Your task to perform on an android device: empty trash in the gmail app Image 0: 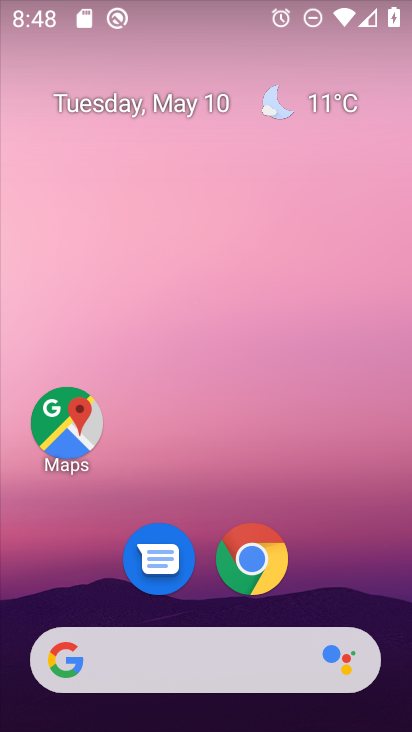
Step 0: drag from (220, 717) to (225, 156)
Your task to perform on an android device: empty trash in the gmail app Image 1: 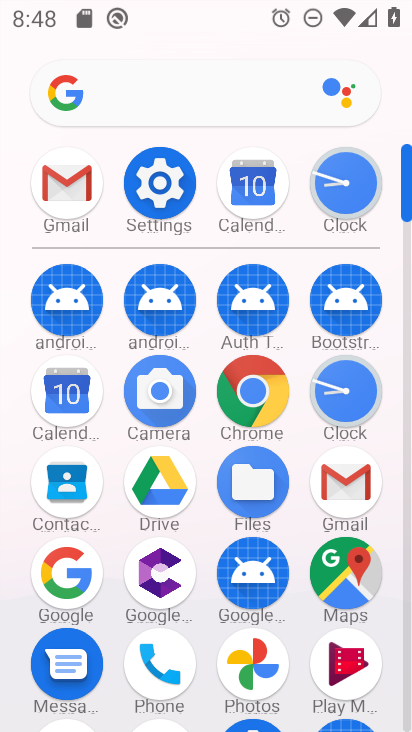
Step 1: click (341, 480)
Your task to perform on an android device: empty trash in the gmail app Image 2: 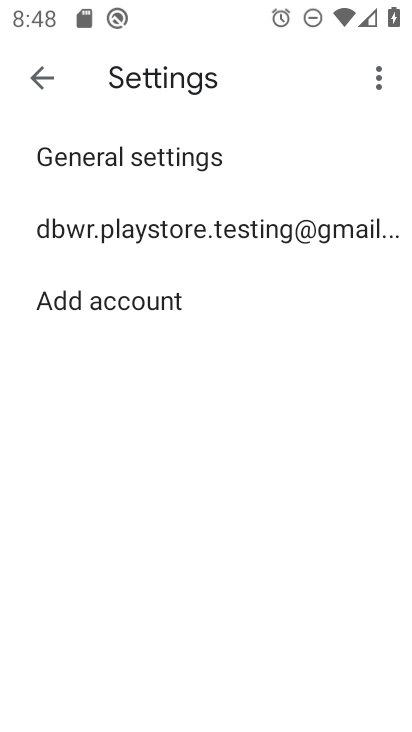
Step 2: click (37, 73)
Your task to perform on an android device: empty trash in the gmail app Image 3: 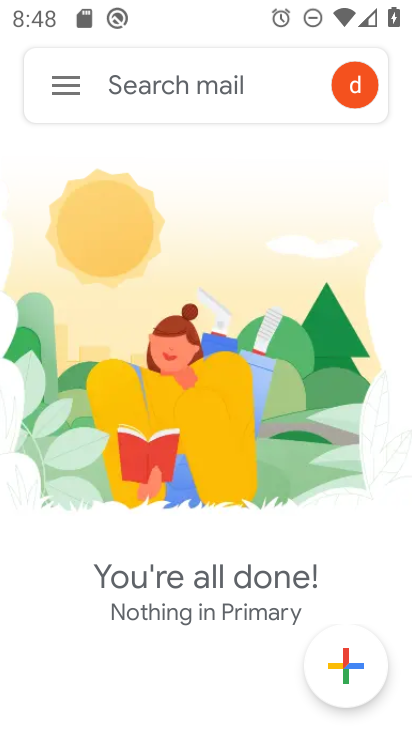
Step 3: click (64, 80)
Your task to perform on an android device: empty trash in the gmail app Image 4: 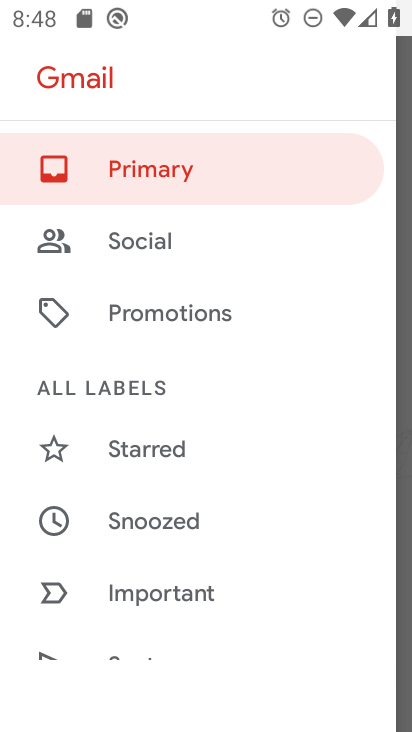
Step 4: drag from (196, 626) to (215, 283)
Your task to perform on an android device: empty trash in the gmail app Image 5: 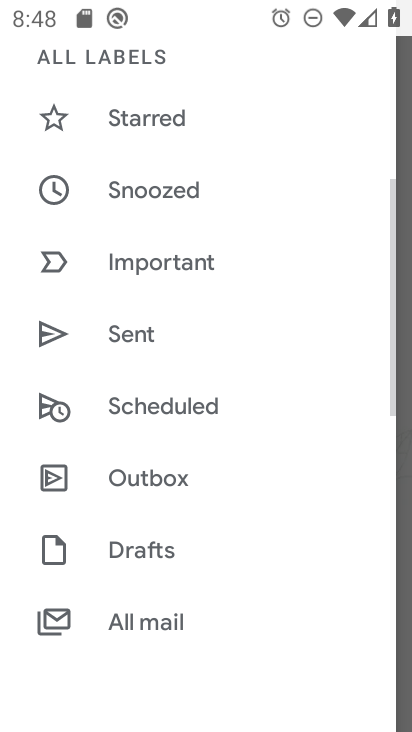
Step 5: drag from (169, 526) to (170, 264)
Your task to perform on an android device: empty trash in the gmail app Image 6: 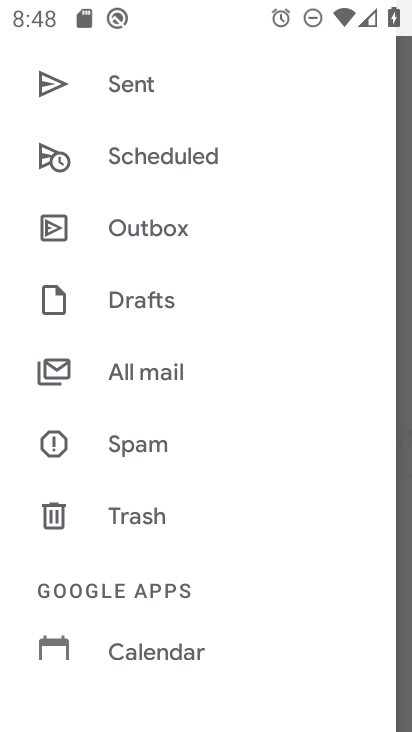
Step 6: click (130, 514)
Your task to perform on an android device: empty trash in the gmail app Image 7: 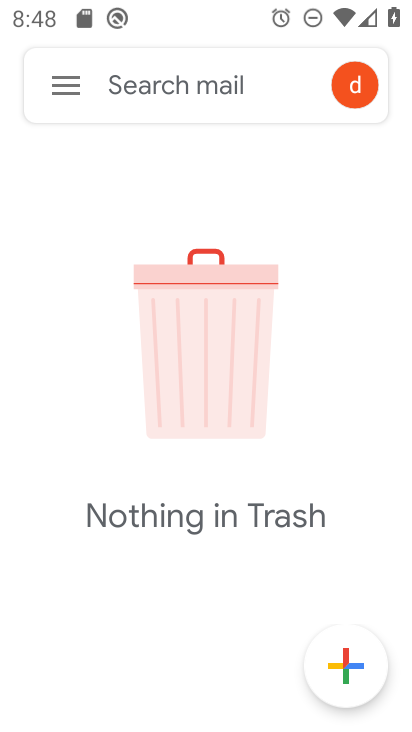
Step 7: task complete